Your task to perform on an android device: check google app version Image 0: 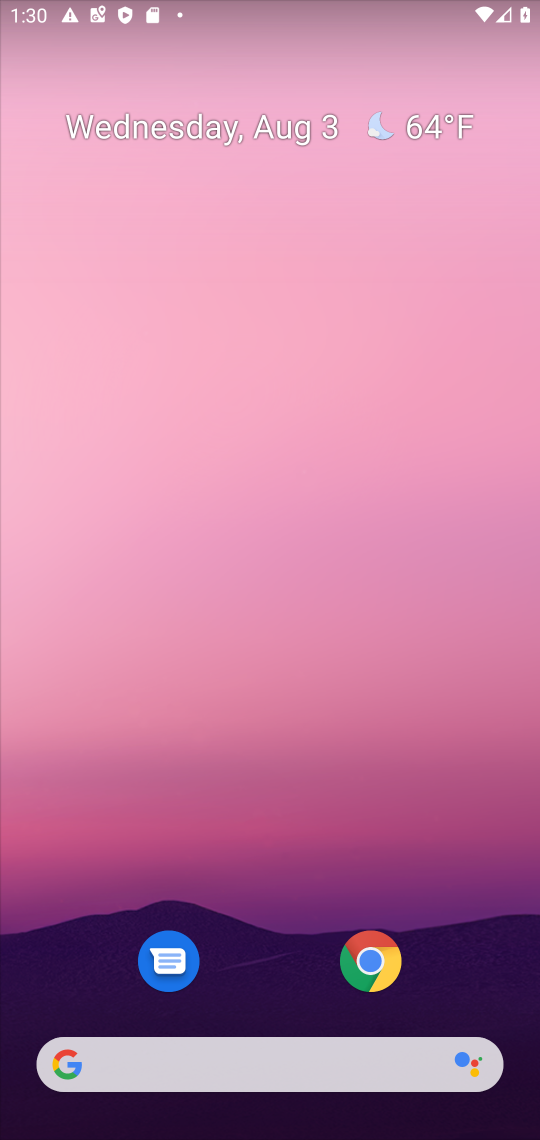
Step 0: drag from (273, 965) to (320, 24)
Your task to perform on an android device: check google app version Image 1: 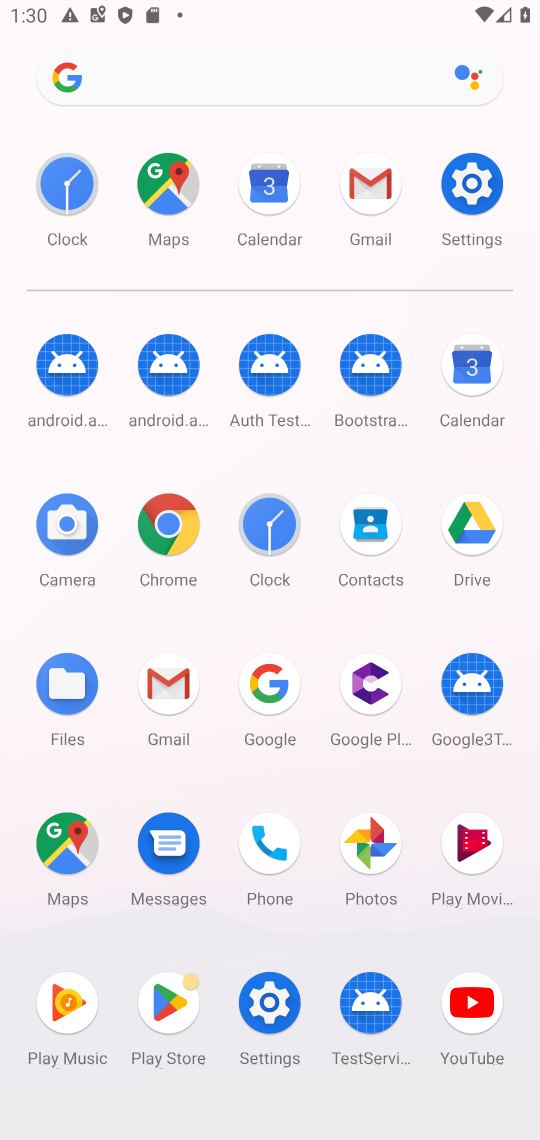
Step 1: click (267, 684)
Your task to perform on an android device: check google app version Image 2: 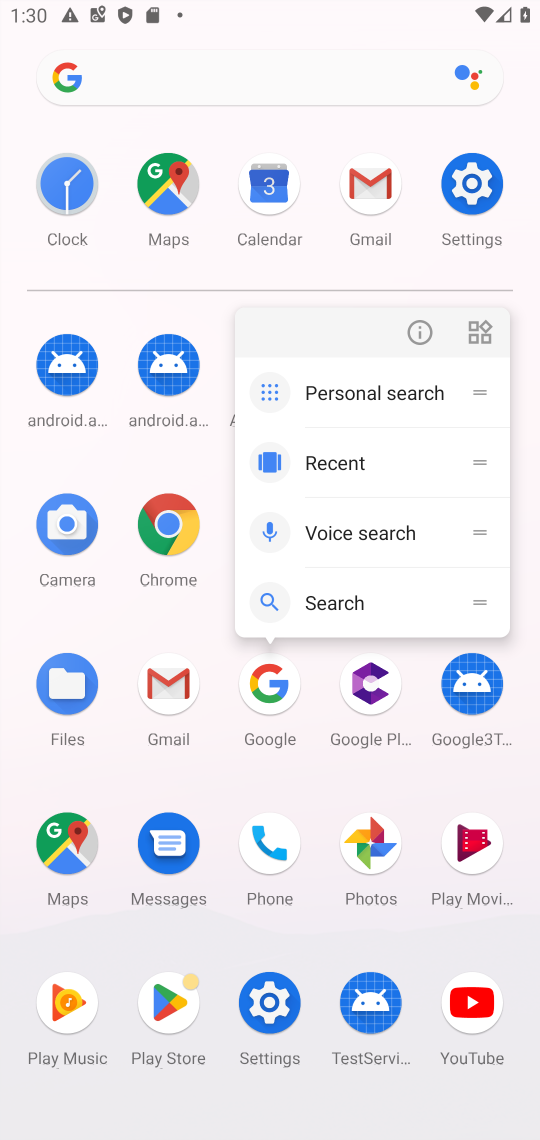
Step 2: click (424, 341)
Your task to perform on an android device: check google app version Image 3: 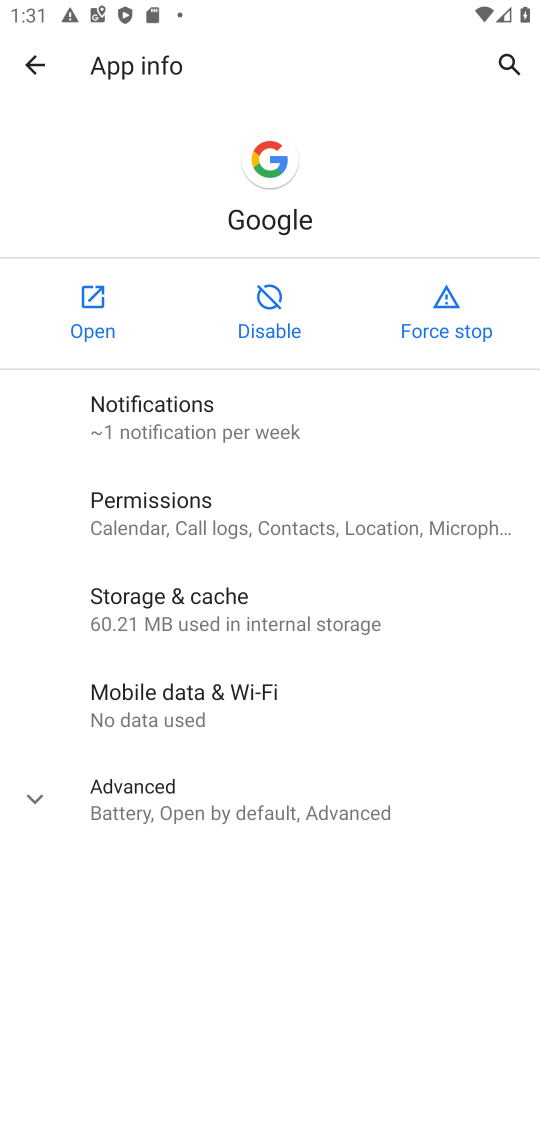
Step 3: click (31, 803)
Your task to perform on an android device: check google app version Image 4: 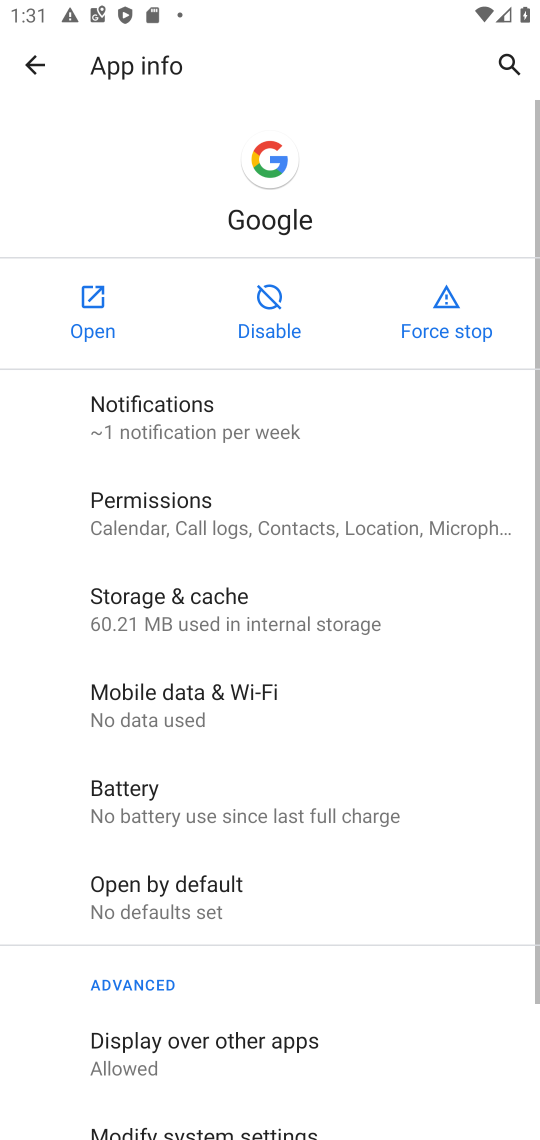
Step 4: task complete